Your task to perform on an android device: Search for Mexican restaurants on Maps Image 0: 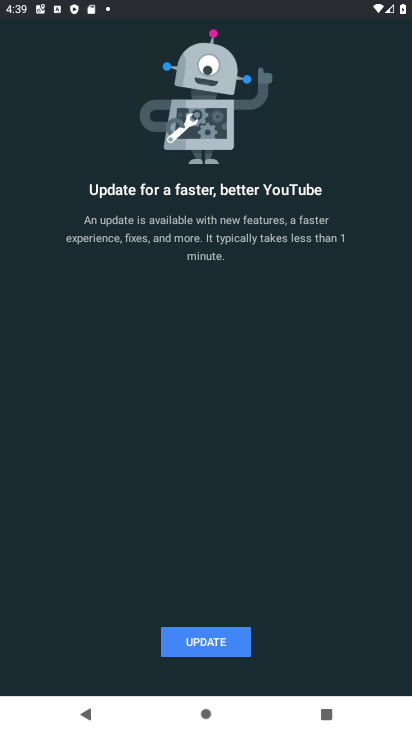
Step 0: press home button
Your task to perform on an android device: Search for Mexican restaurants on Maps Image 1: 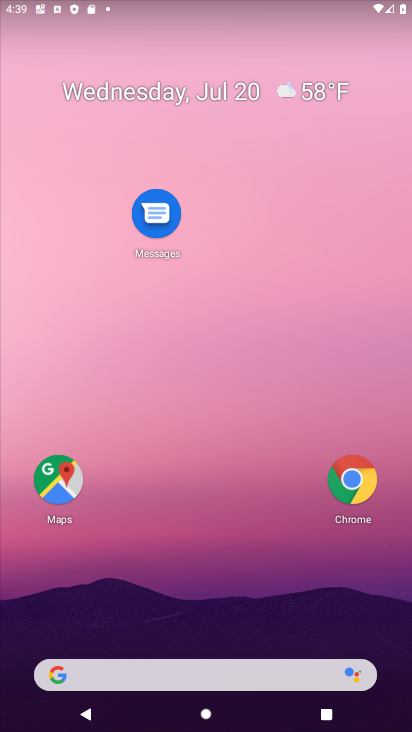
Step 1: click (53, 462)
Your task to perform on an android device: Search for Mexican restaurants on Maps Image 2: 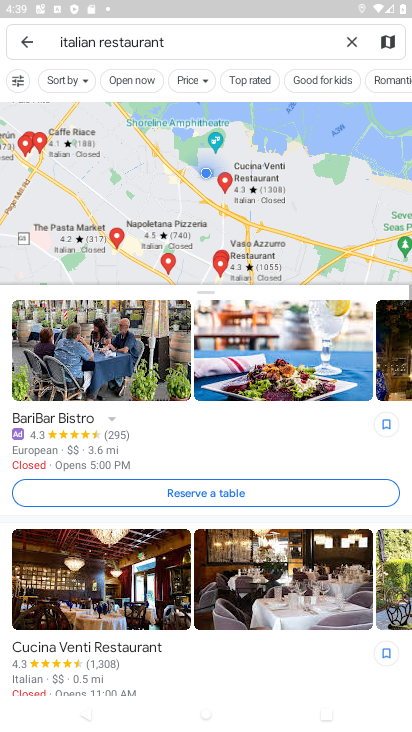
Step 2: click (24, 49)
Your task to perform on an android device: Search for Mexican restaurants on Maps Image 3: 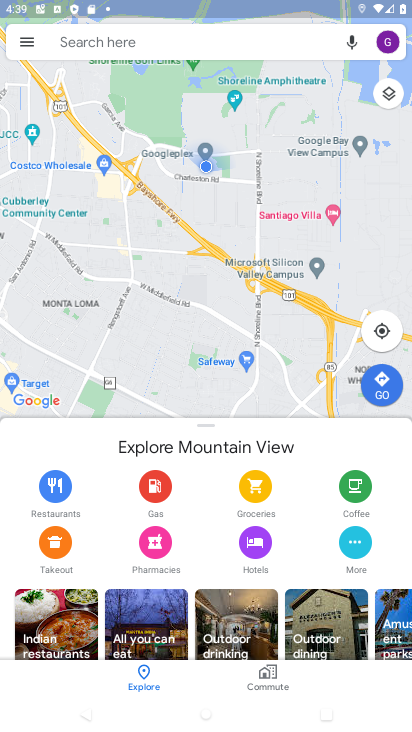
Step 3: click (110, 36)
Your task to perform on an android device: Search for Mexican restaurants on Maps Image 4: 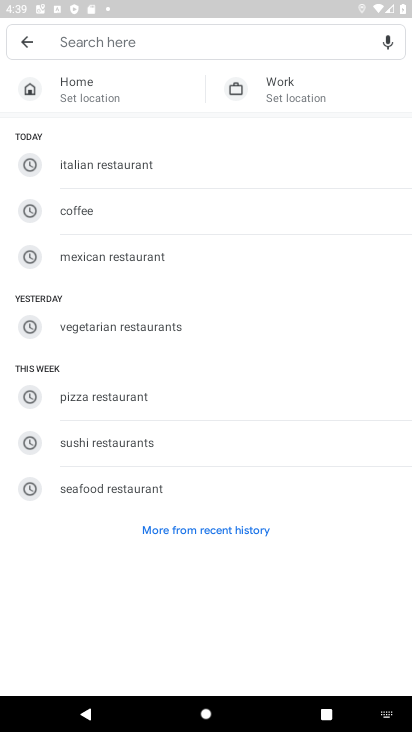
Step 4: click (109, 257)
Your task to perform on an android device: Search for Mexican restaurants on Maps Image 5: 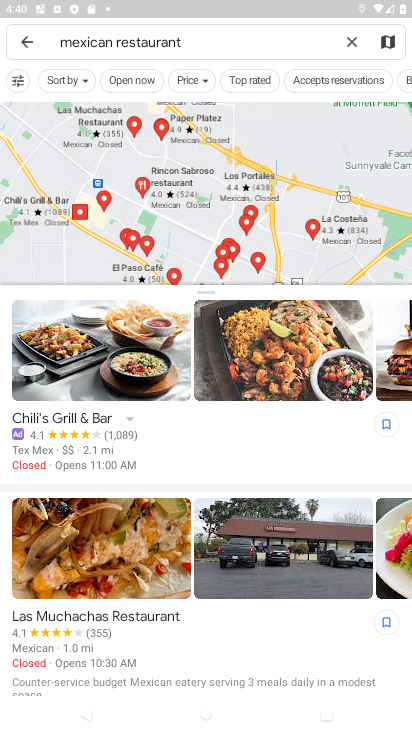
Step 5: task complete